Your task to perform on an android device: open sync settings in chrome Image 0: 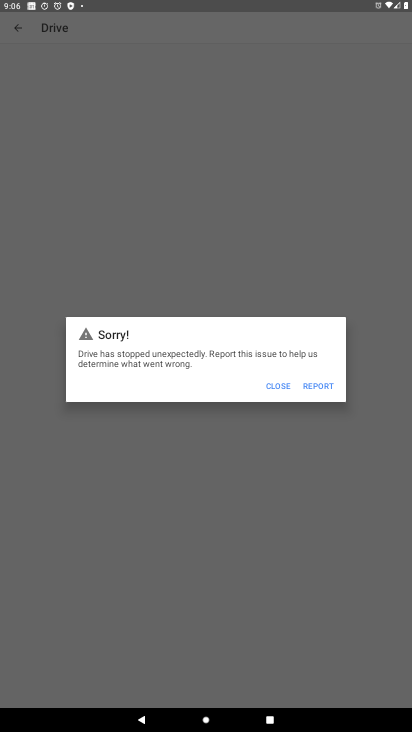
Step 0: press home button
Your task to perform on an android device: open sync settings in chrome Image 1: 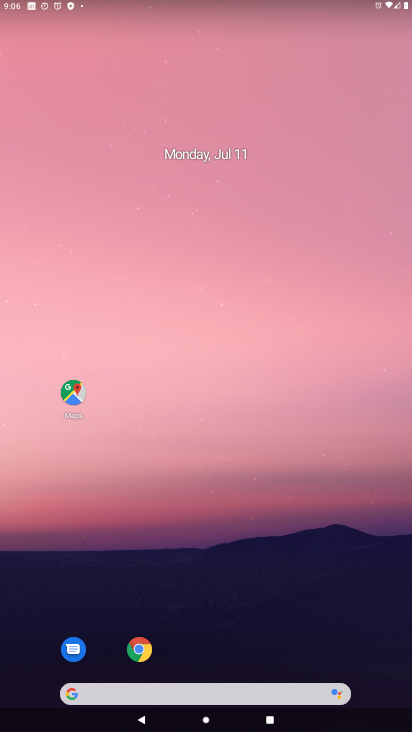
Step 1: click (140, 651)
Your task to perform on an android device: open sync settings in chrome Image 2: 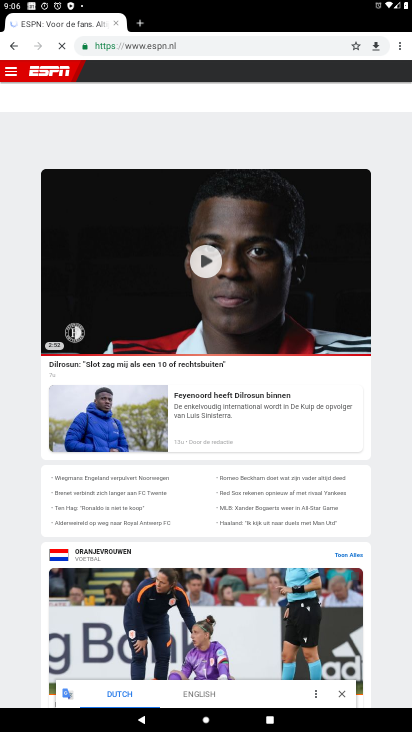
Step 2: click (400, 47)
Your task to perform on an android device: open sync settings in chrome Image 3: 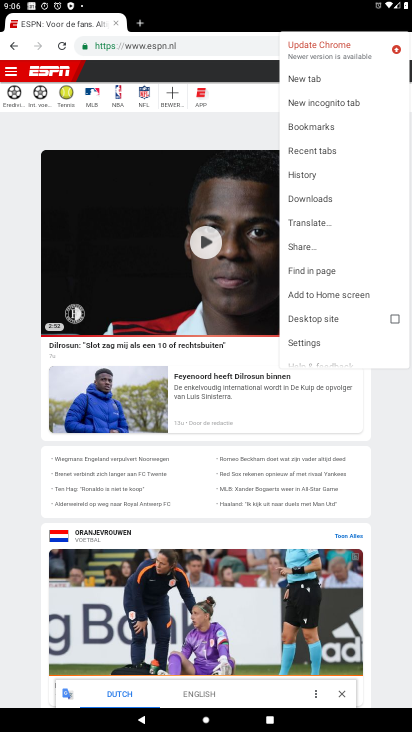
Step 3: click (313, 341)
Your task to perform on an android device: open sync settings in chrome Image 4: 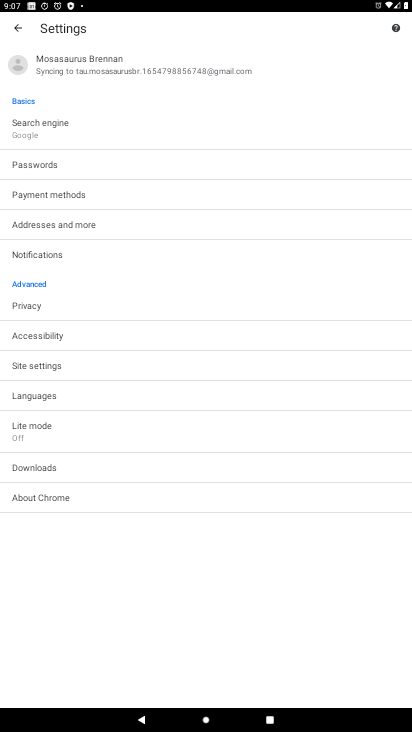
Step 4: click (38, 369)
Your task to perform on an android device: open sync settings in chrome Image 5: 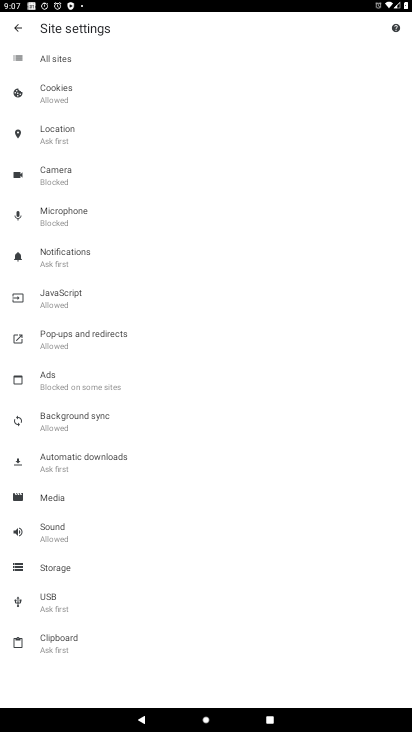
Step 5: click (72, 413)
Your task to perform on an android device: open sync settings in chrome Image 6: 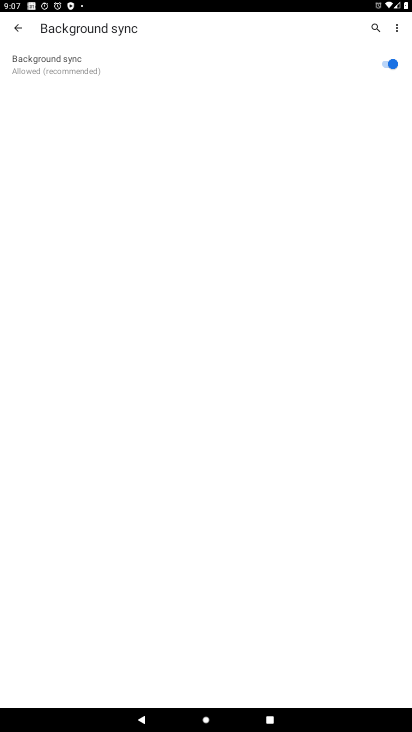
Step 6: task complete